Your task to perform on an android device: turn on airplane mode Image 0: 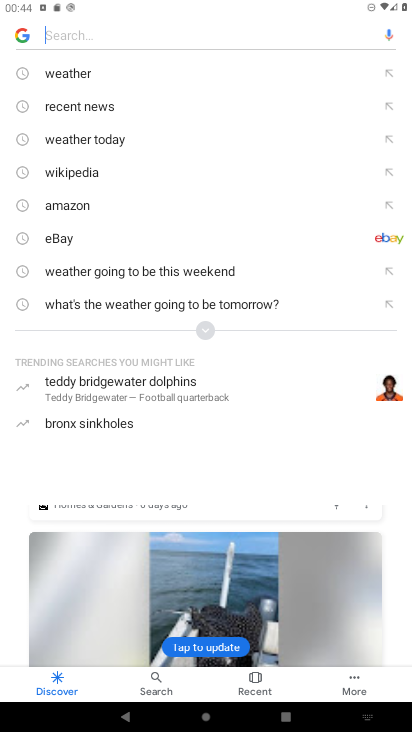
Step 0: press home button
Your task to perform on an android device: turn on airplane mode Image 1: 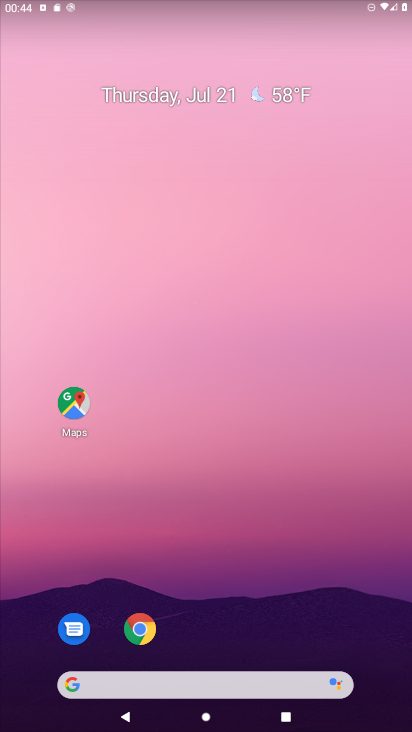
Step 1: drag from (224, 611) to (216, 58)
Your task to perform on an android device: turn on airplane mode Image 2: 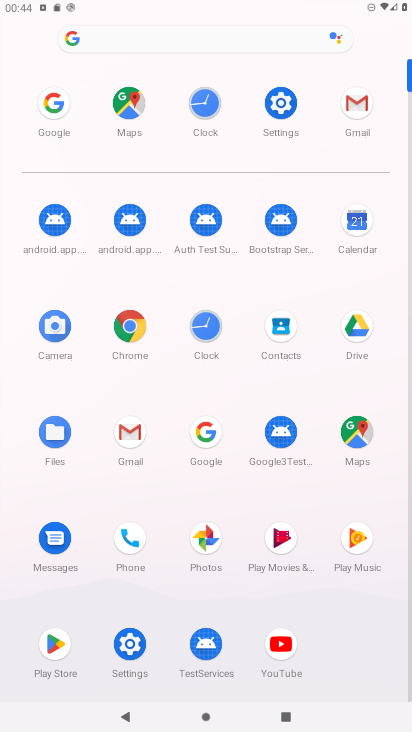
Step 2: click (286, 122)
Your task to perform on an android device: turn on airplane mode Image 3: 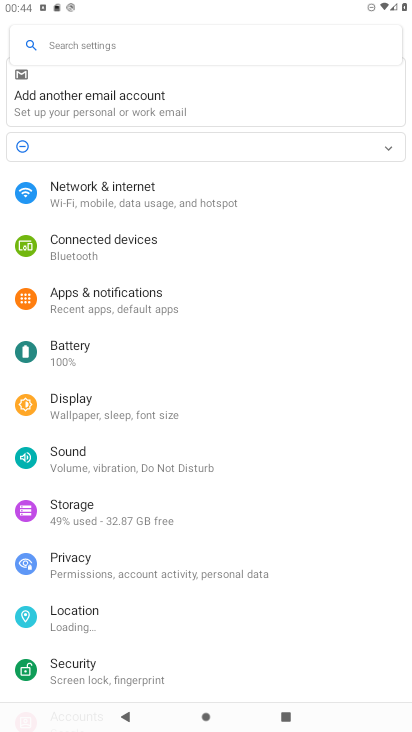
Step 3: click (250, 114)
Your task to perform on an android device: turn on airplane mode Image 4: 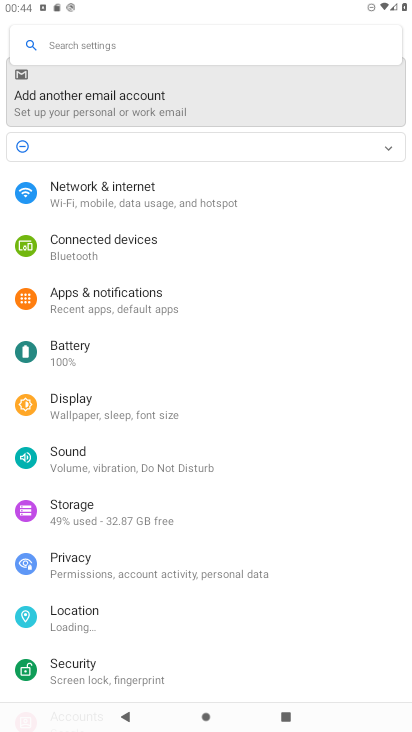
Step 4: click (196, 189)
Your task to perform on an android device: turn on airplane mode Image 5: 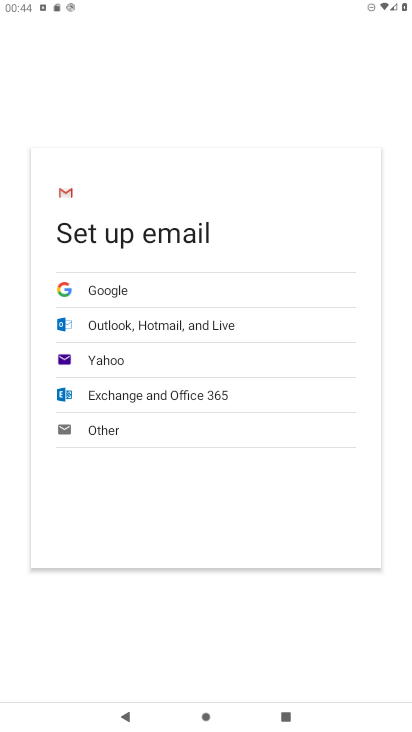
Step 5: press back button
Your task to perform on an android device: turn on airplane mode Image 6: 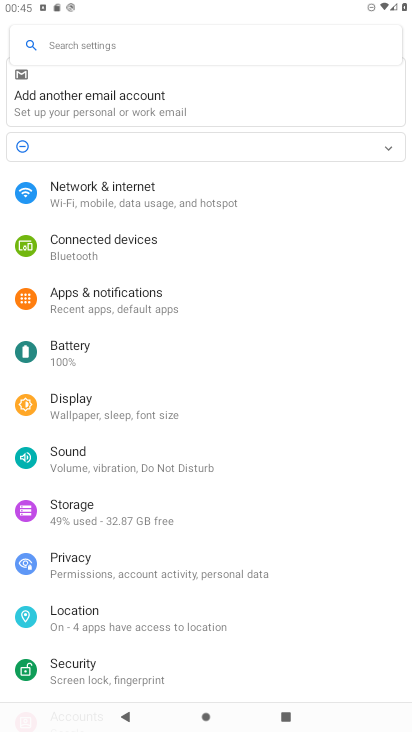
Step 6: click (129, 203)
Your task to perform on an android device: turn on airplane mode Image 7: 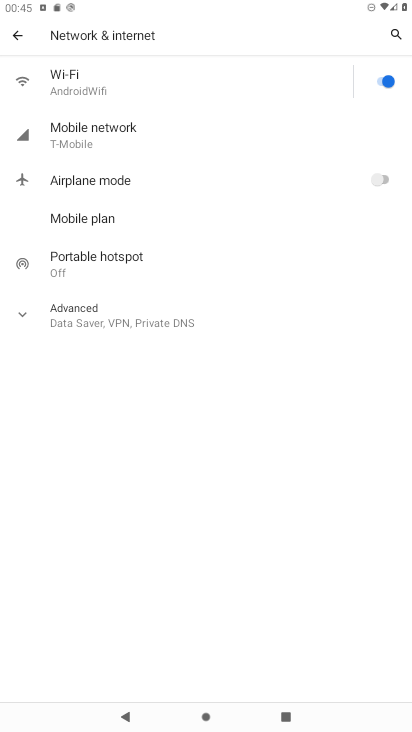
Step 7: click (380, 192)
Your task to perform on an android device: turn on airplane mode Image 8: 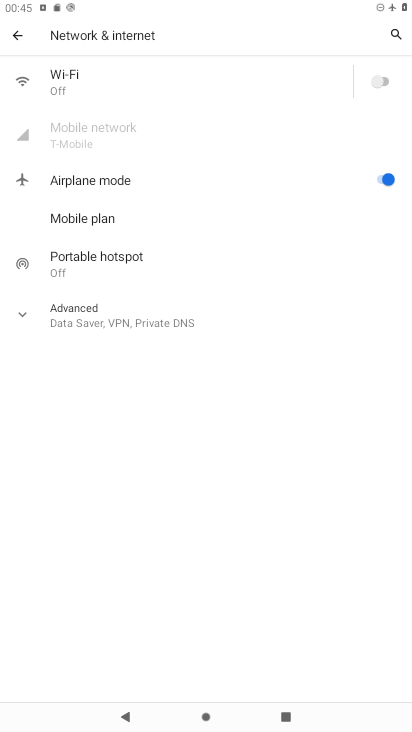
Step 8: task complete